Your task to perform on an android device: Go to Google maps Image 0: 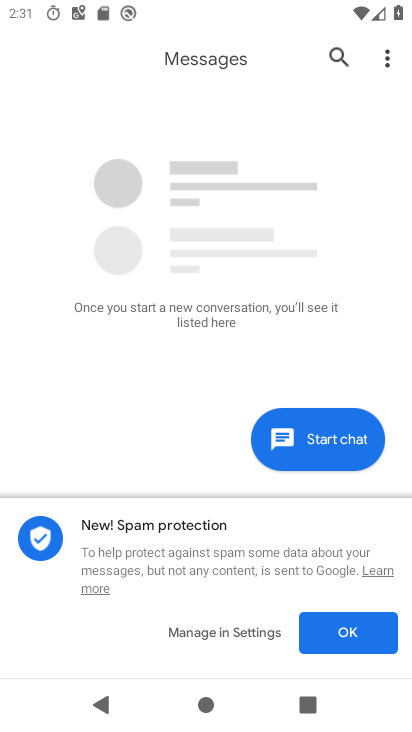
Step 0: press home button
Your task to perform on an android device: Go to Google maps Image 1: 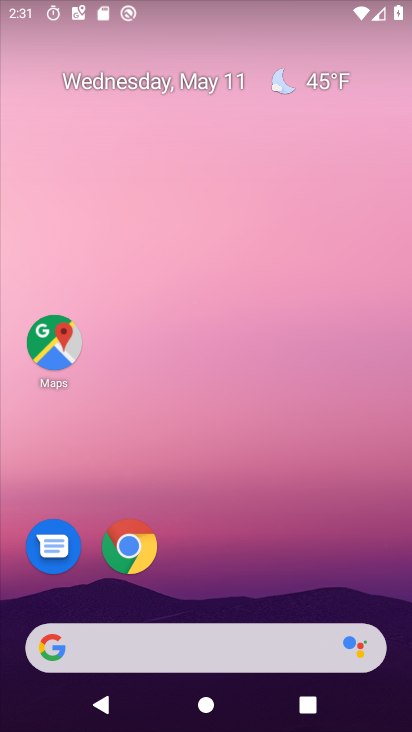
Step 1: drag from (201, 572) to (201, 141)
Your task to perform on an android device: Go to Google maps Image 2: 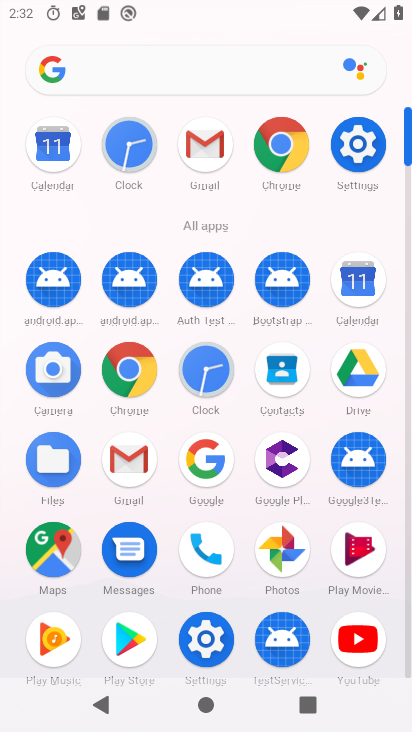
Step 2: click (61, 536)
Your task to perform on an android device: Go to Google maps Image 3: 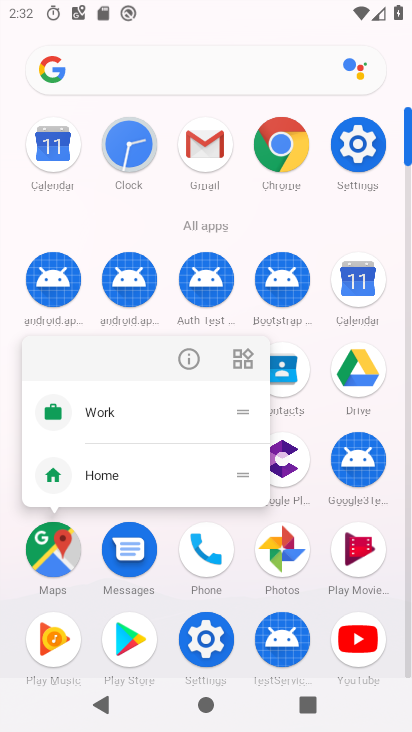
Step 3: click (44, 537)
Your task to perform on an android device: Go to Google maps Image 4: 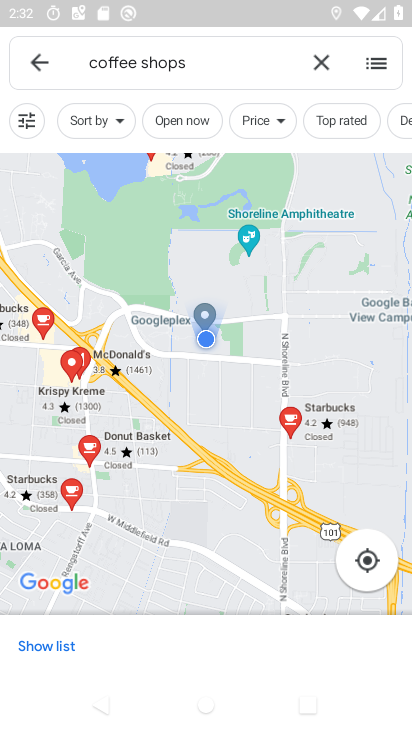
Step 4: task complete